Your task to perform on an android device: Open internet settings Image 0: 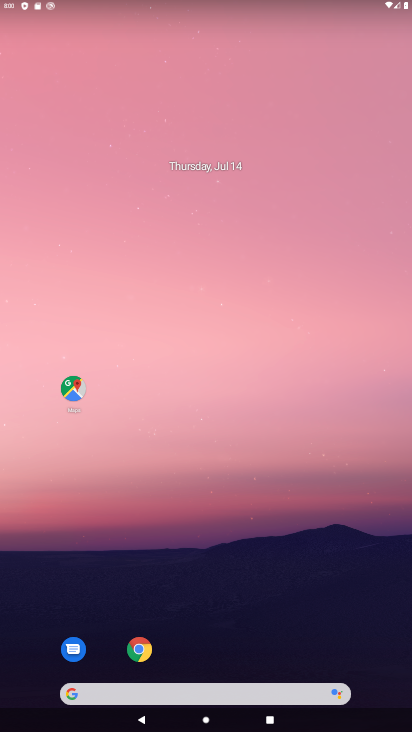
Step 0: drag from (175, 693) to (229, 378)
Your task to perform on an android device: Open internet settings Image 1: 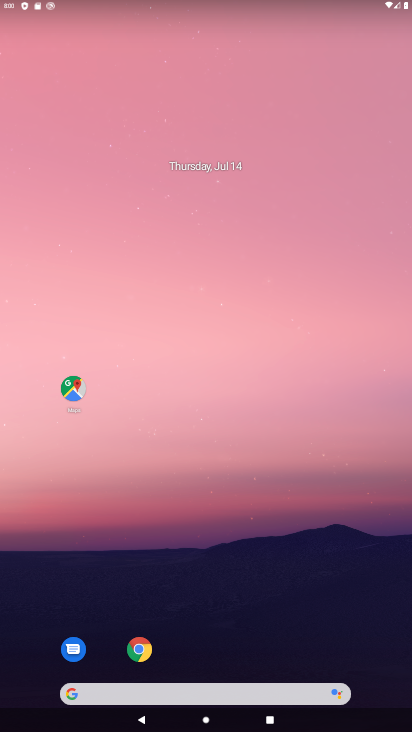
Step 1: drag from (176, 673) to (223, 320)
Your task to perform on an android device: Open internet settings Image 2: 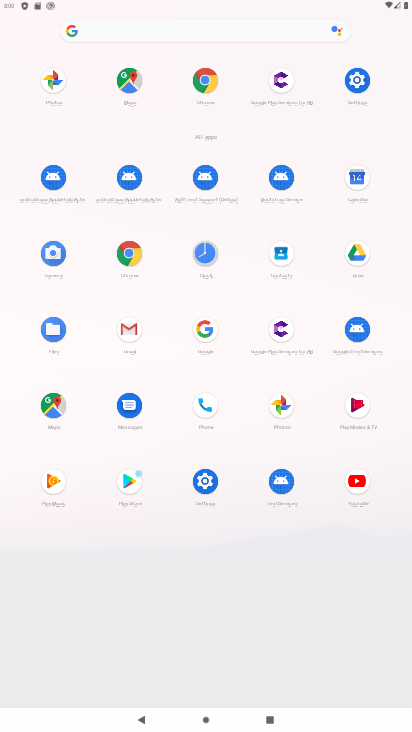
Step 2: click (207, 474)
Your task to perform on an android device: Open internet settings Image 3: 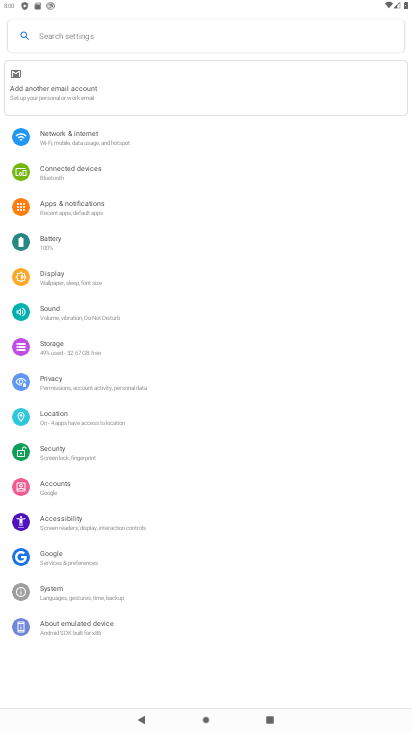
Step 3: click (53, 139)
Your task to perform on an android device: Open internet settings Image 4: 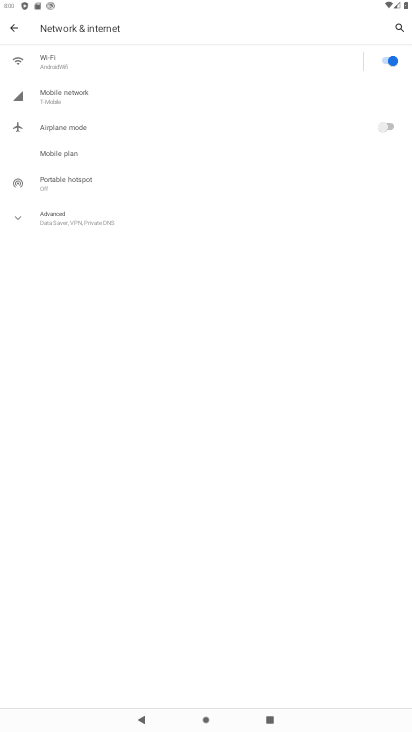
Step 4: click (58, 207)
Your task to perform on an android device: Open internet settings Image 5: 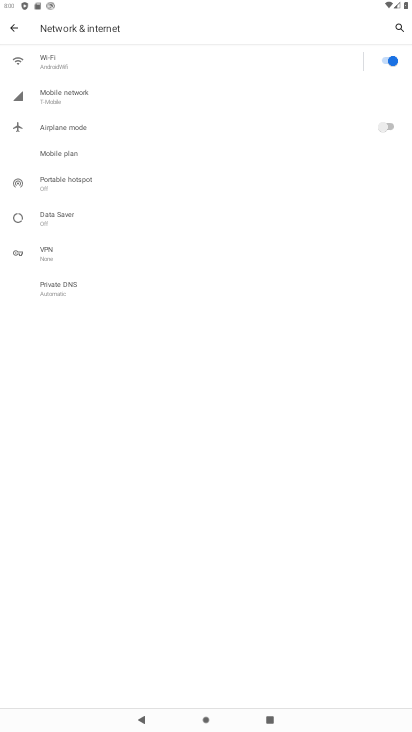
Step 5: task complete